Your task to perform on an android device: all mails in gmail Image 0: 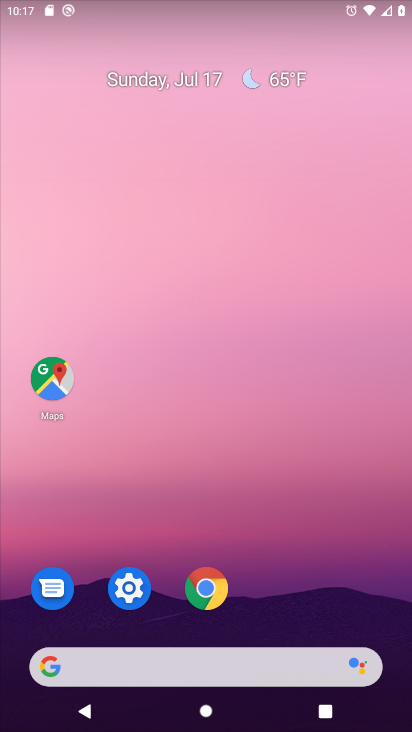
Step 0: drag from (272, 678) to (207, 166)
Your task to perform on an android device: all mails in gmail Image 1: 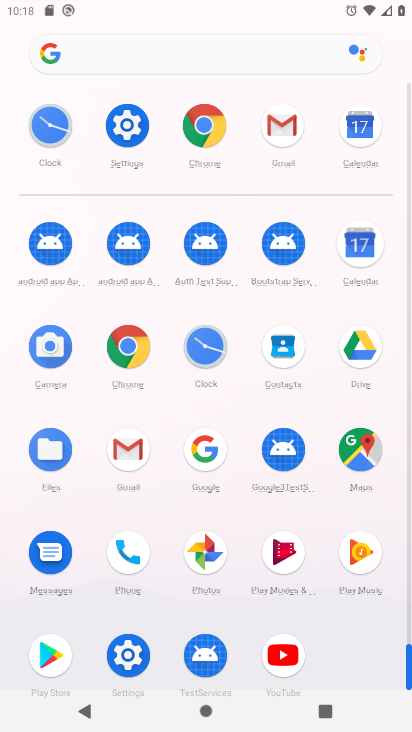
Step 1: click (283, 120)
Your task to perform on an android device: all mails in gmail Image 2: 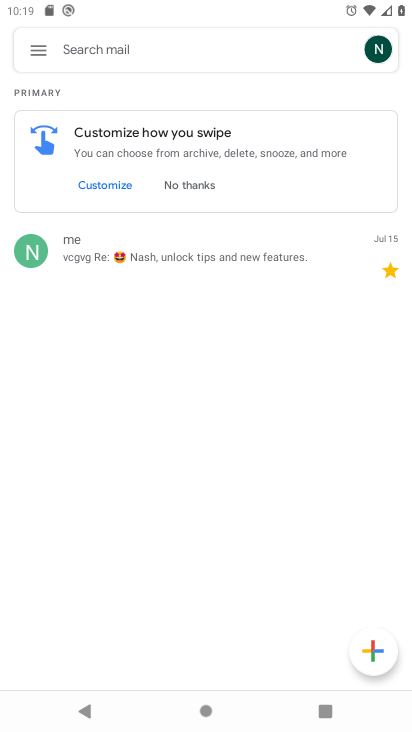
Step 2: task complete